Your task to perform on an android device: toggle data saver in the chrome app Image 0: 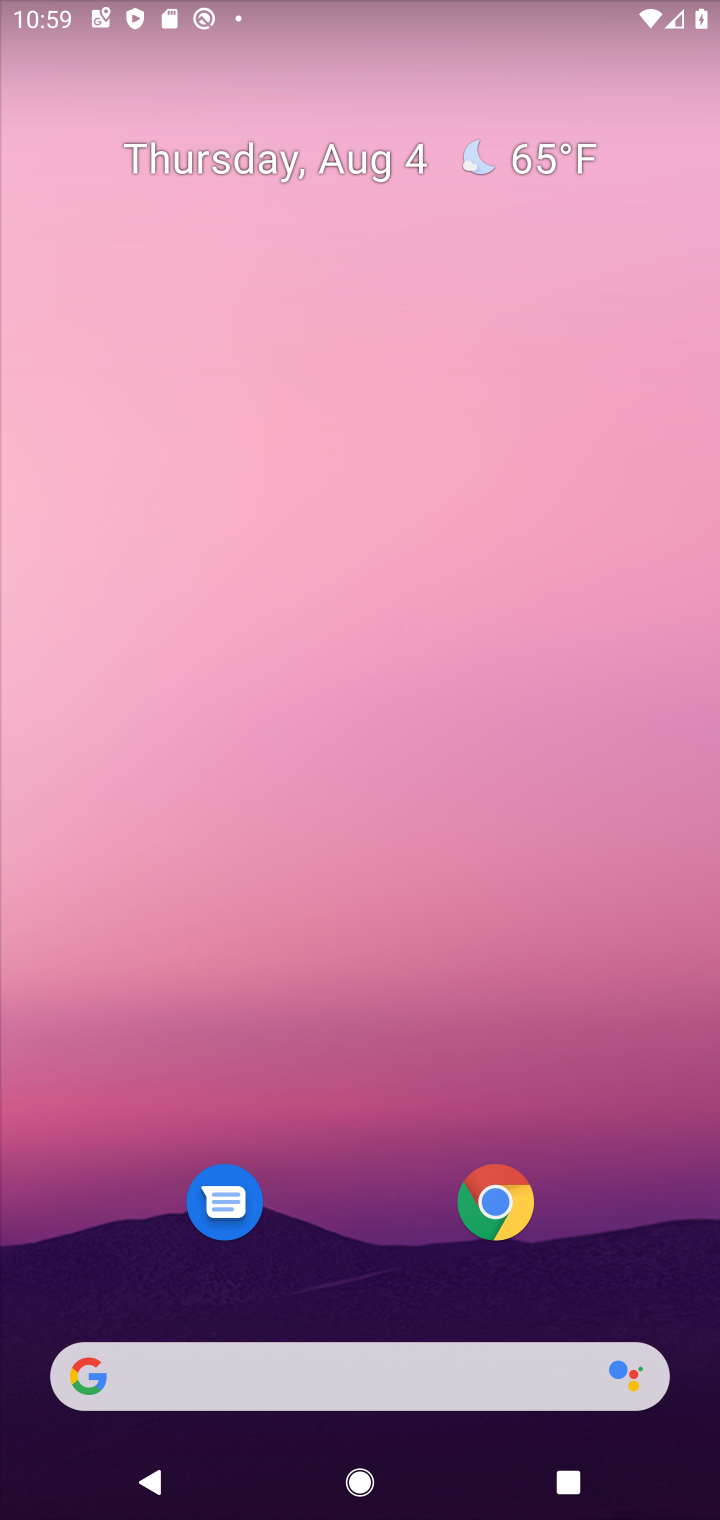
Step 0: press back button
Your task to perform on an android device: toggle data saver in the chrome app Image 1: 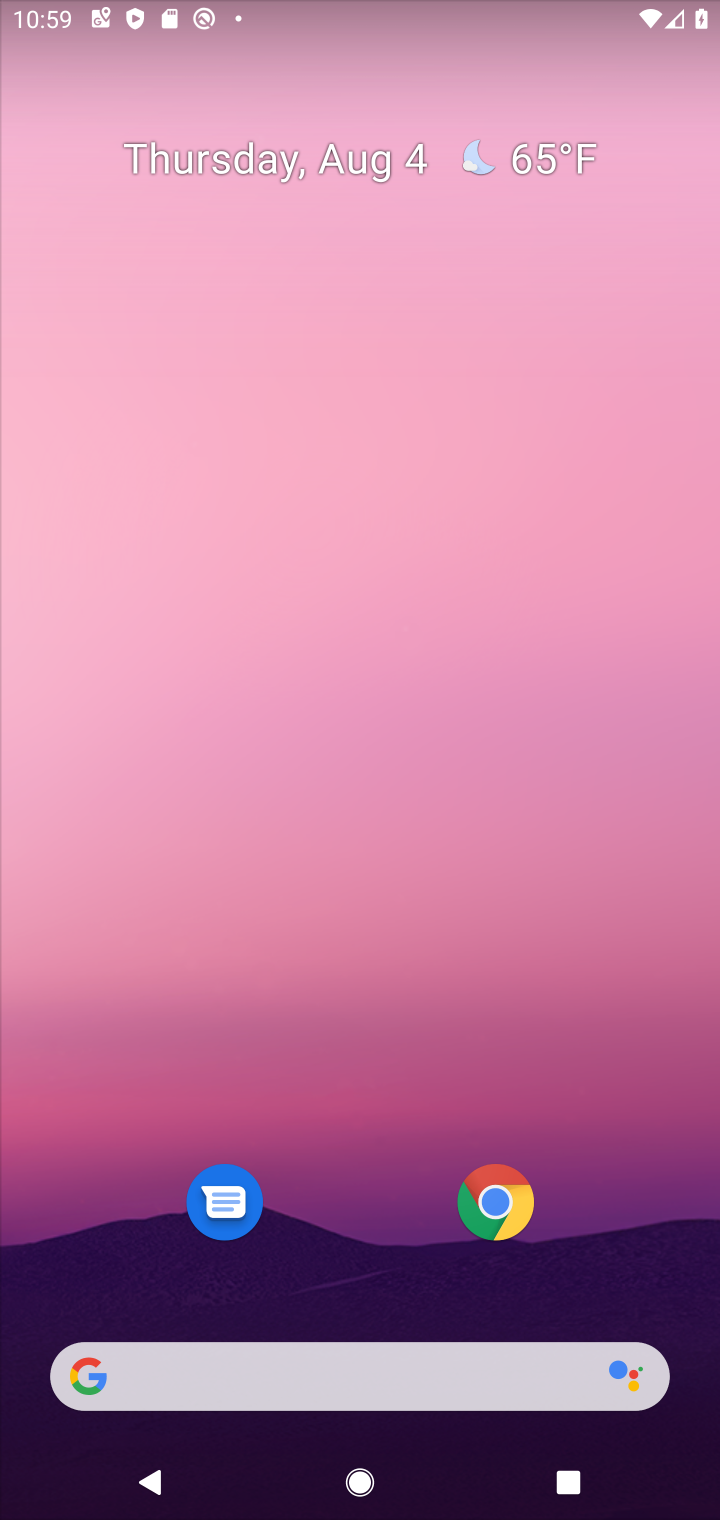
Step 1: click (476, 1166)
Your task to perform on an android device: toggle data saver in the chrome app Image 2: 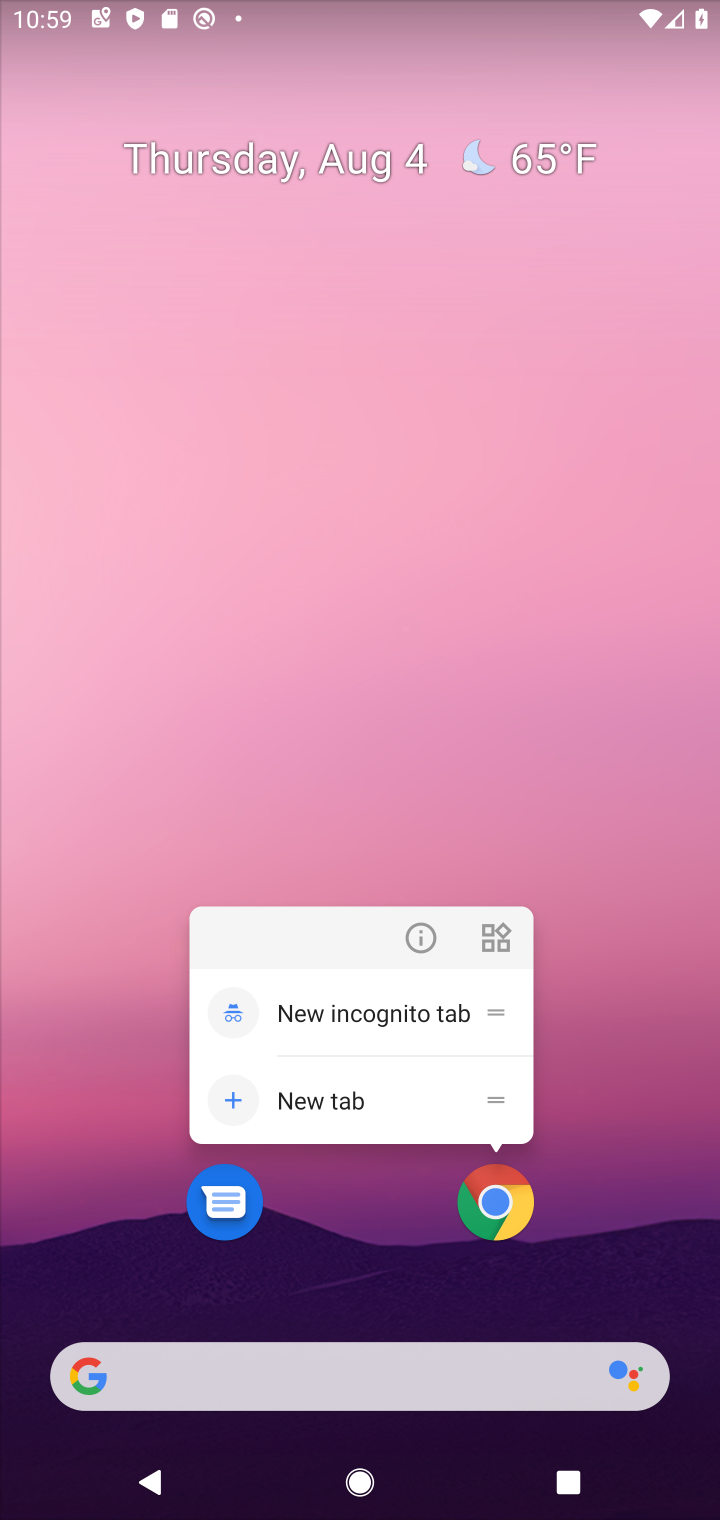
Step 2: click (508, 1191)
Your task to perform on an android device: toggle data saver in the chrome app Image 3: 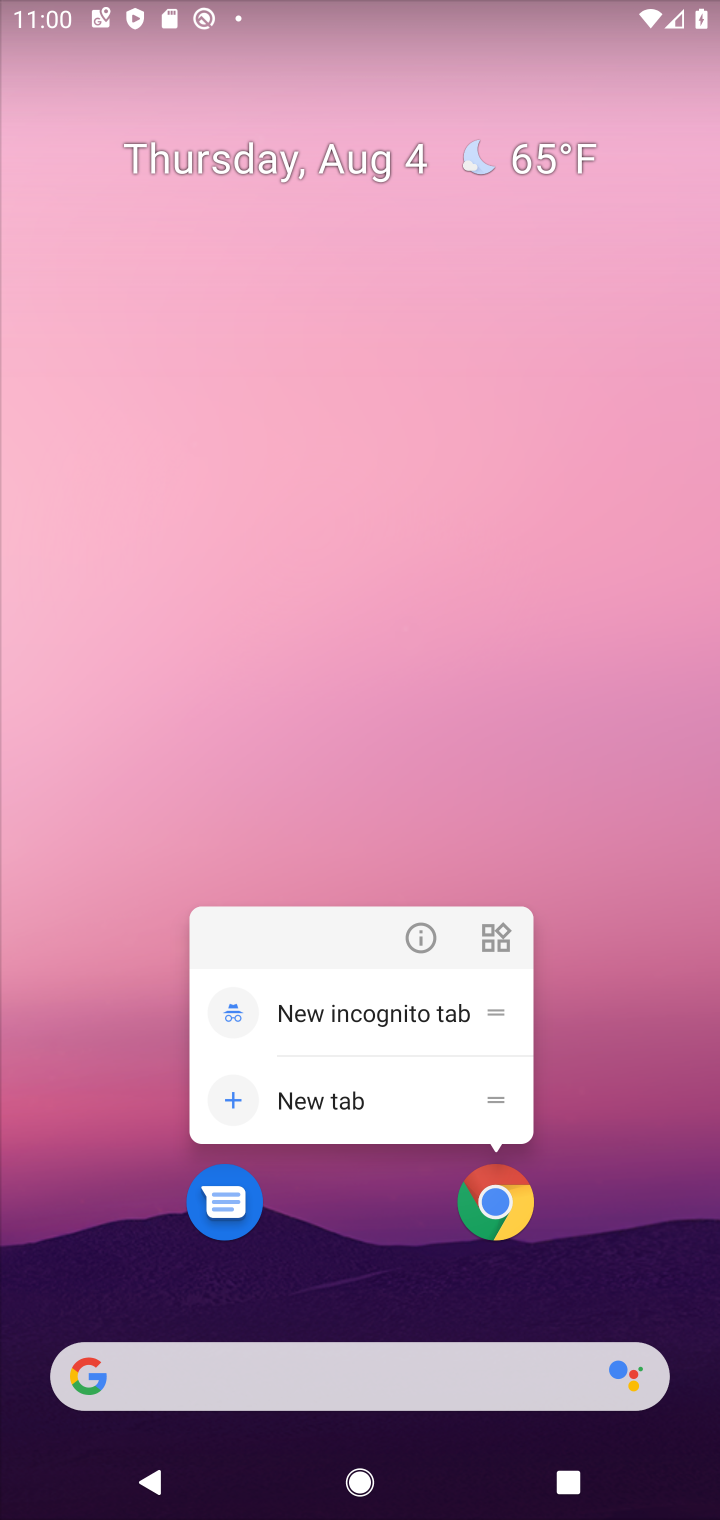
Step 3: click (465, 1189)
Your task to perform on an android device: toggle data saver in the chrome app Image 4: 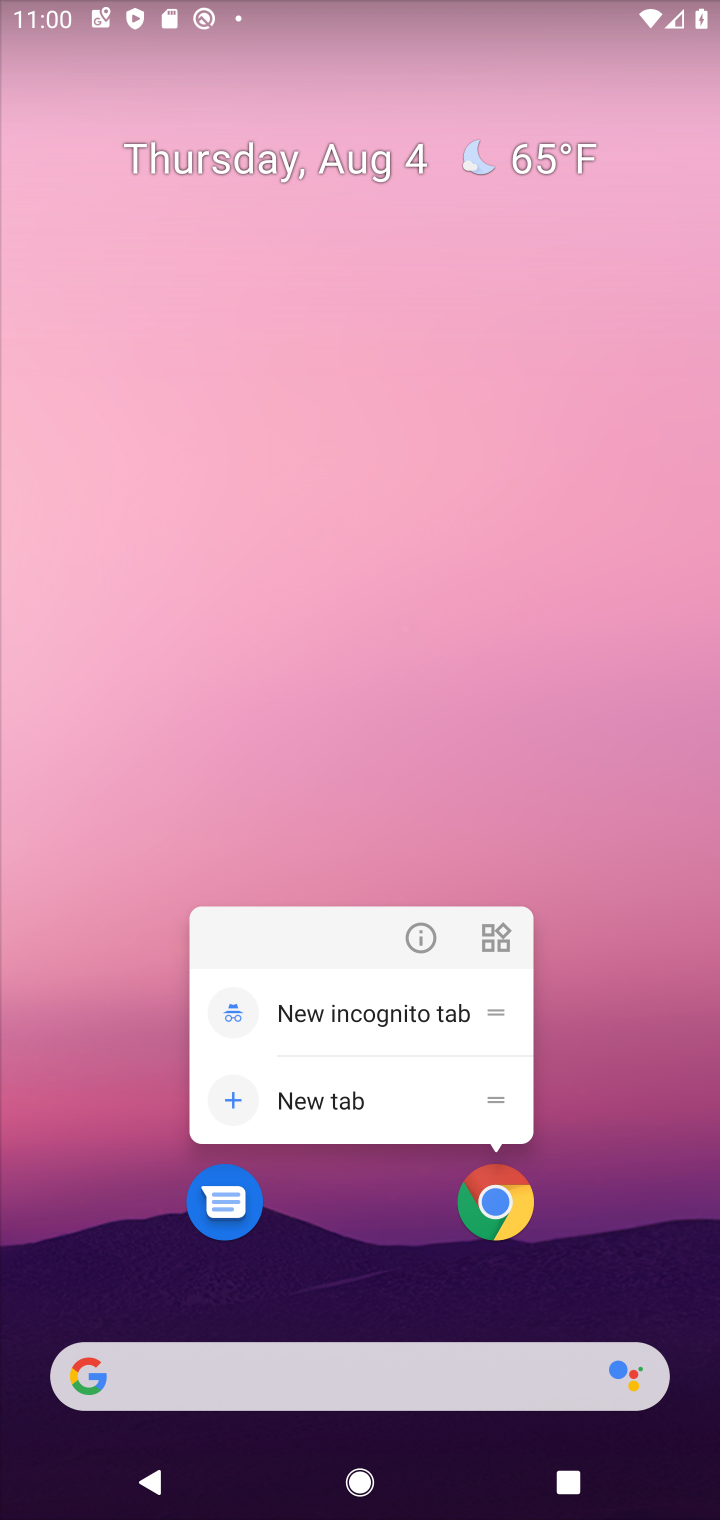
Step 4: click (513, 1188)
Your task to perform on an android device: toggle data saver in the chrome app Image 5: 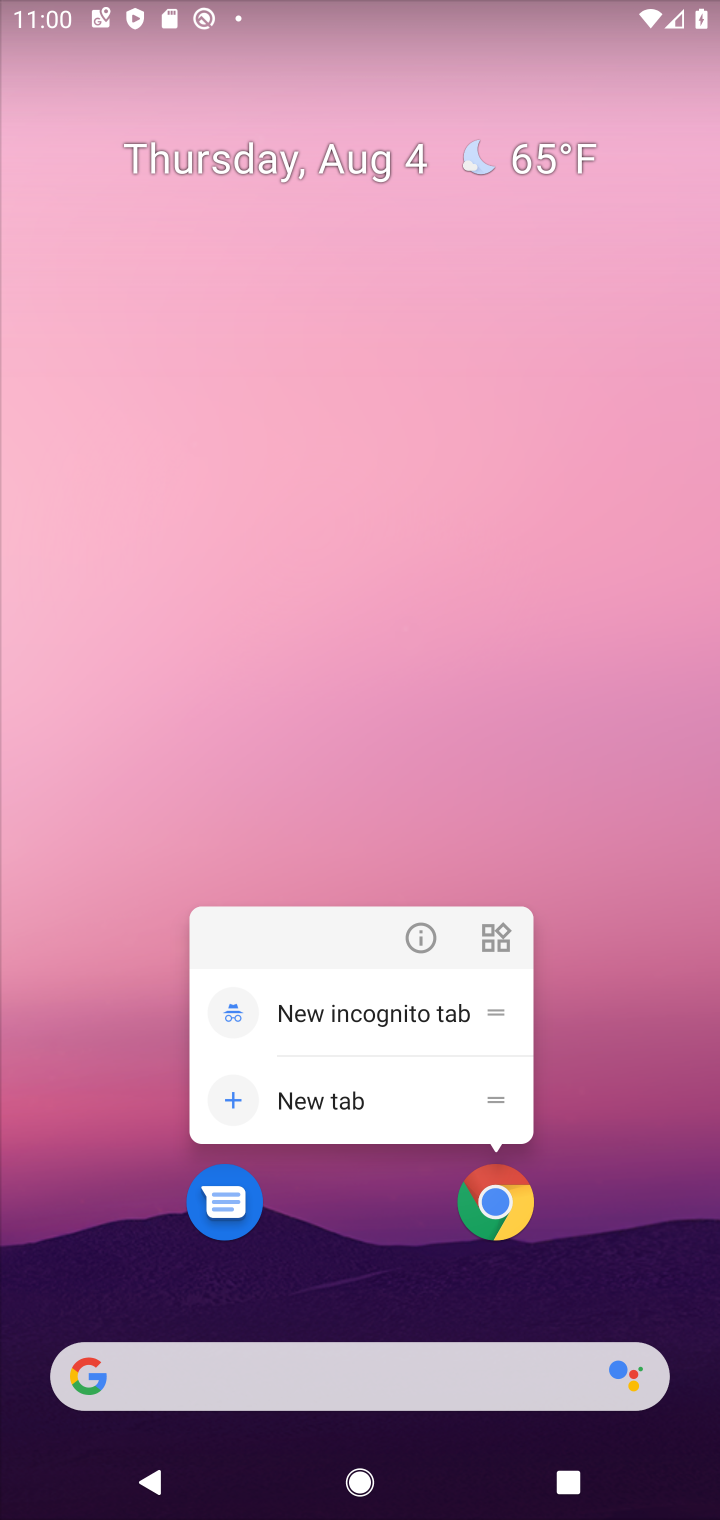
Step 5: click (496, 1215)
Your task to perform on an android device: toggle data saver in the chrome app Image 6: 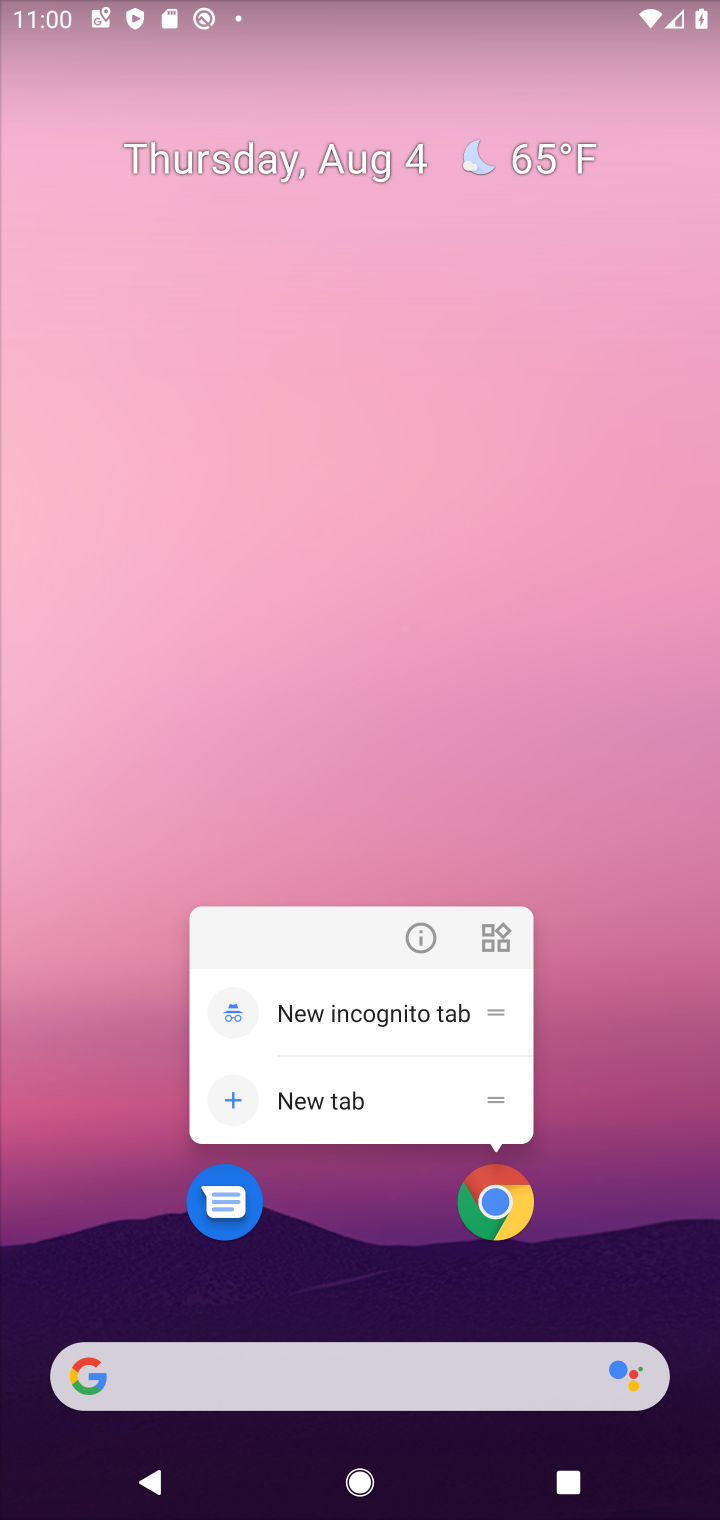
Step 6: click (496, 1215)
Your task to perform on an android device: toggle data saver in the chrome app Image 7: 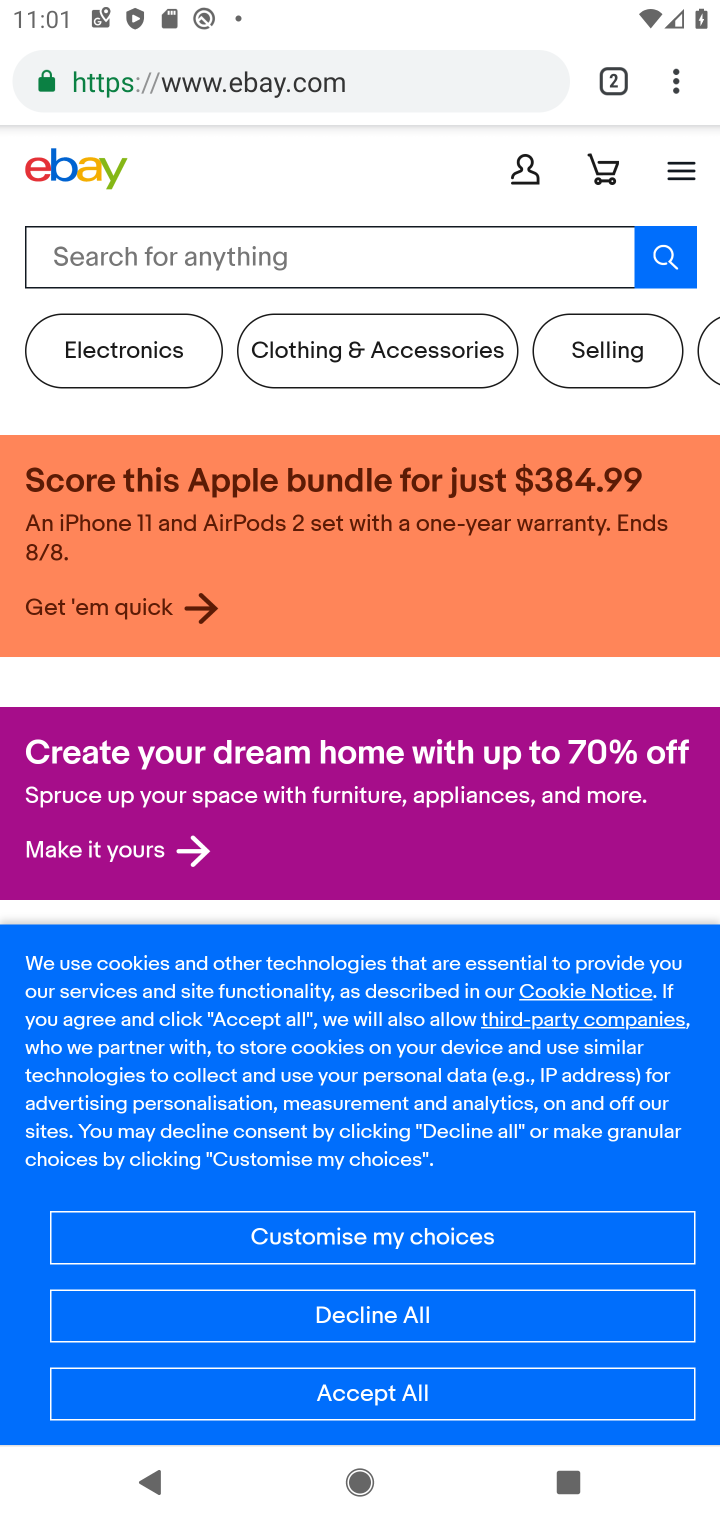
Step 7: drag from (670, 71) to (431, 1002)
Your task to perform on an android device: toggle data saver in the chrome app Image 8: 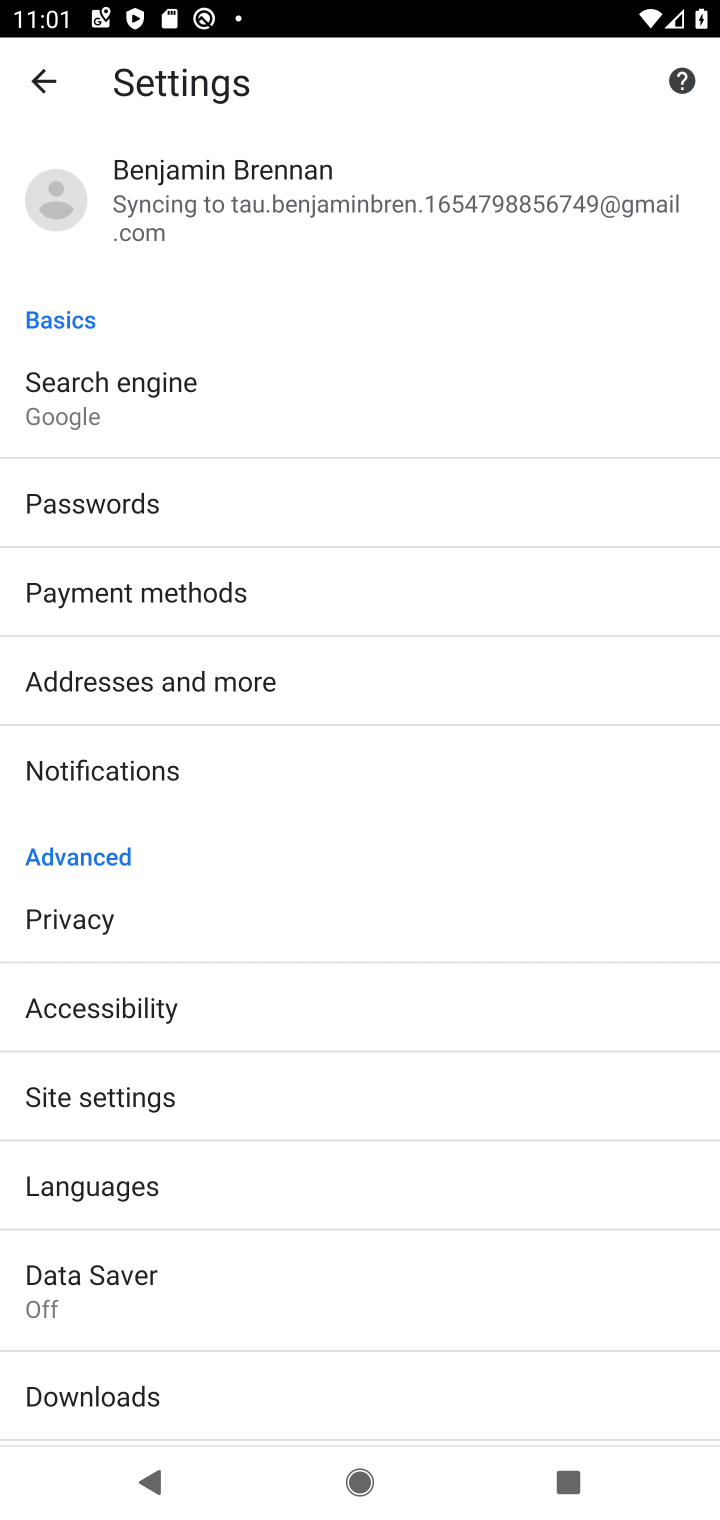
Step 8: click (85, 1271)
Your task to perform on an android device: toggle data saver in the chrome app Image 9: 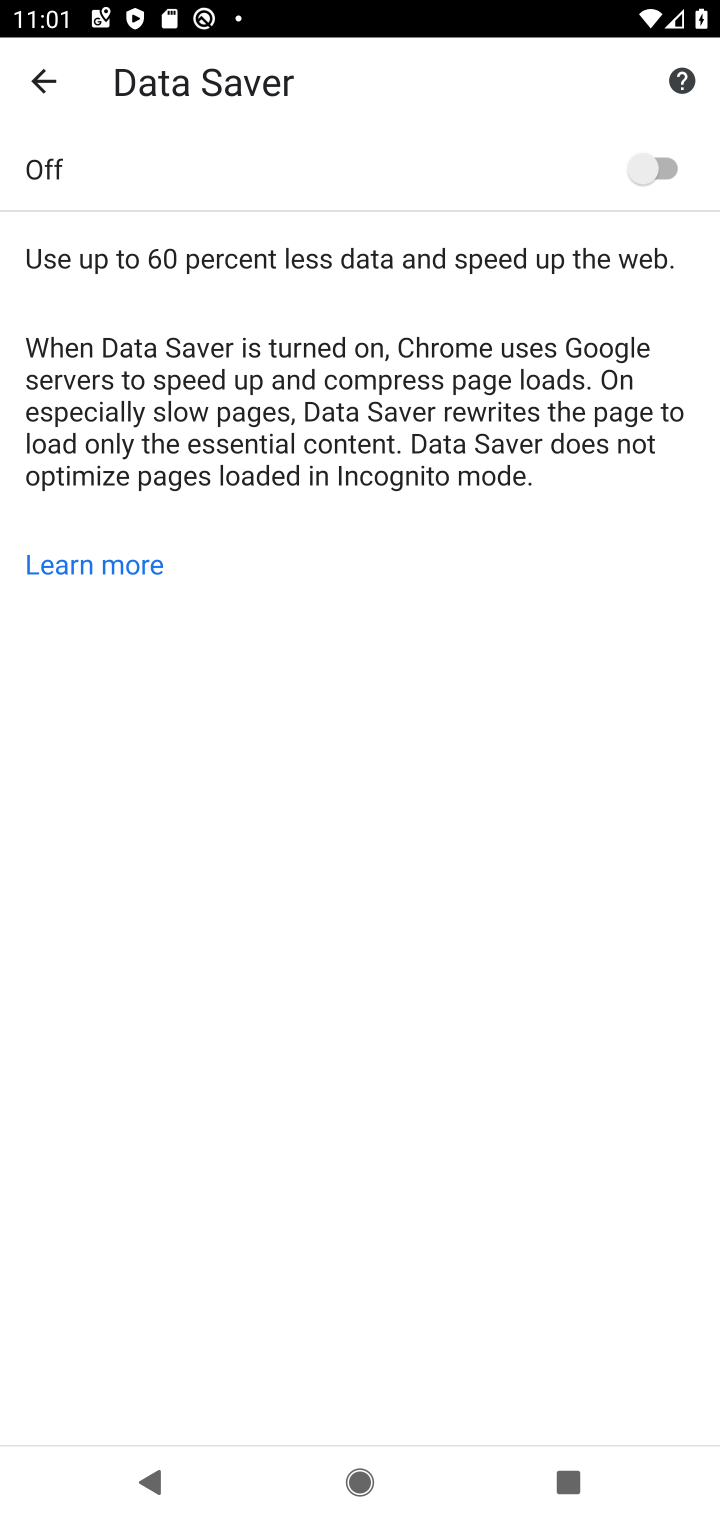
Step 9: click (648, 151)
Your task to perform on an android device: toggle data saver in the chrome app Image 10: 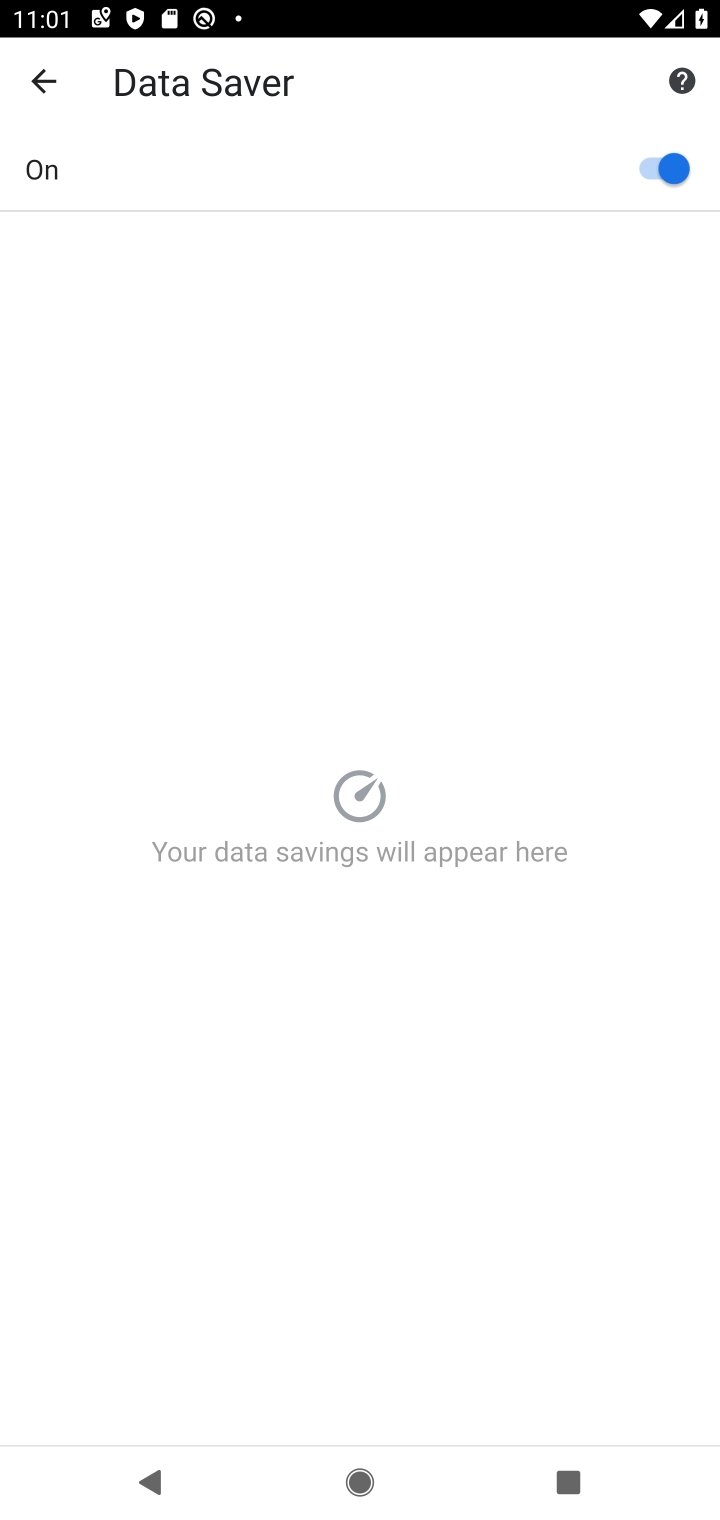
Step 10: task complete